Your task to perform on an android device: allow notifications from all sites in the chrome app Image 0: 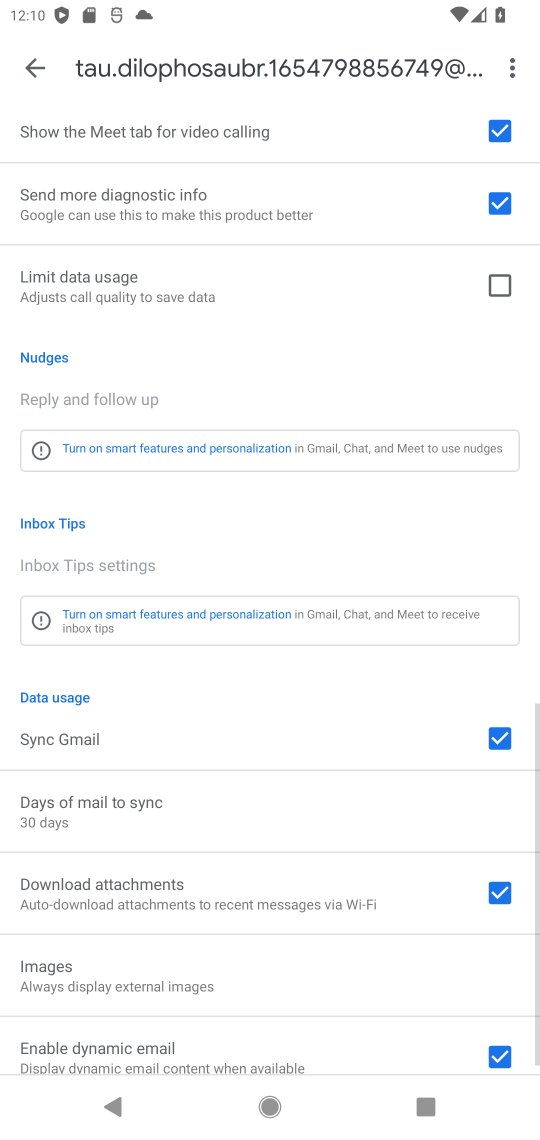
Step 0: press home button
Your task to perform on an android device: allow notifications from all sites in the chrome app Image 1: 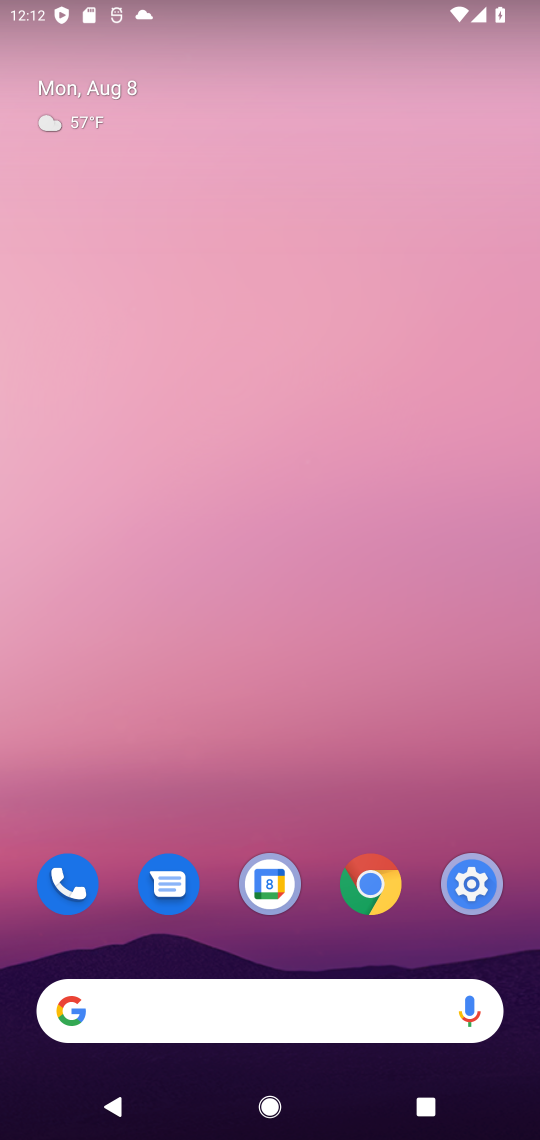
Step 1: click (365, 880)
Your task to perform on an android device: allow notifications from all sites in the chrome app Image 2: 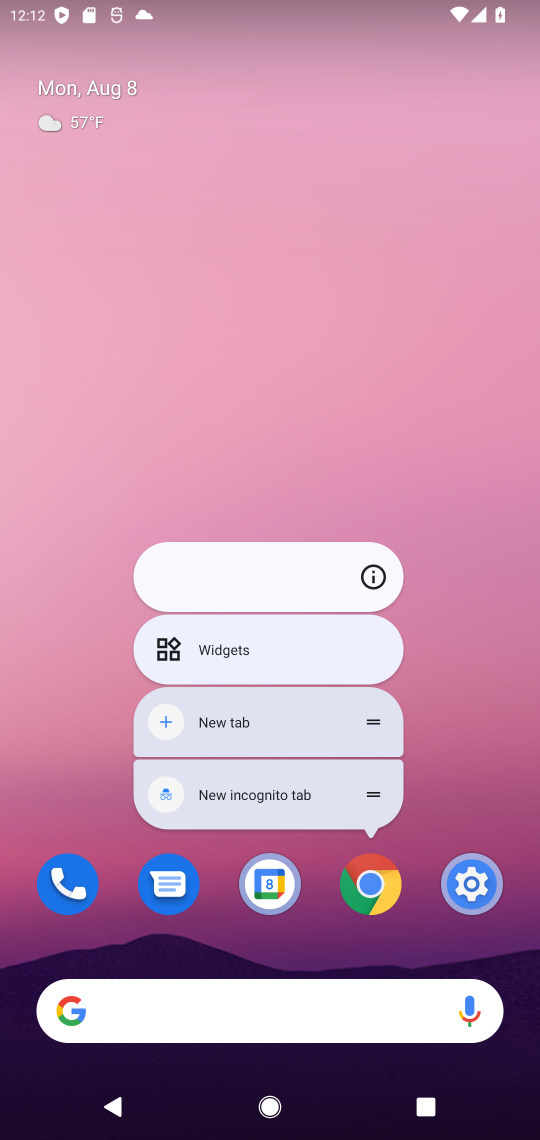
Step 2: click (365, 880)
Your task to perform on an android device: allow notifications from all sites in the chrome app Image 3: 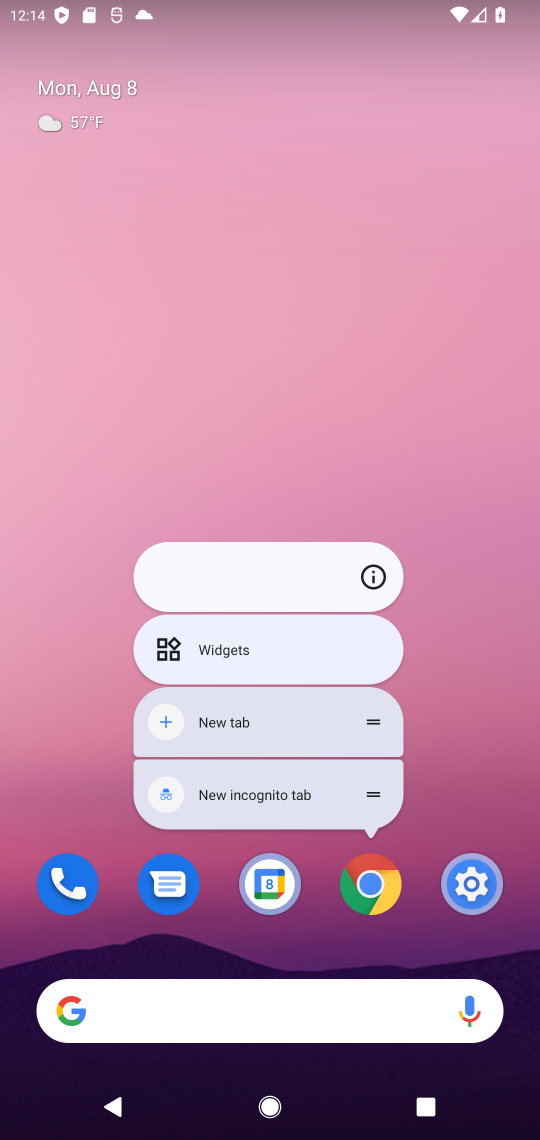
Step 3: click (350, 882)
Your task to perform on an android device: allow notifications from all sites in the chrome app Image 4: 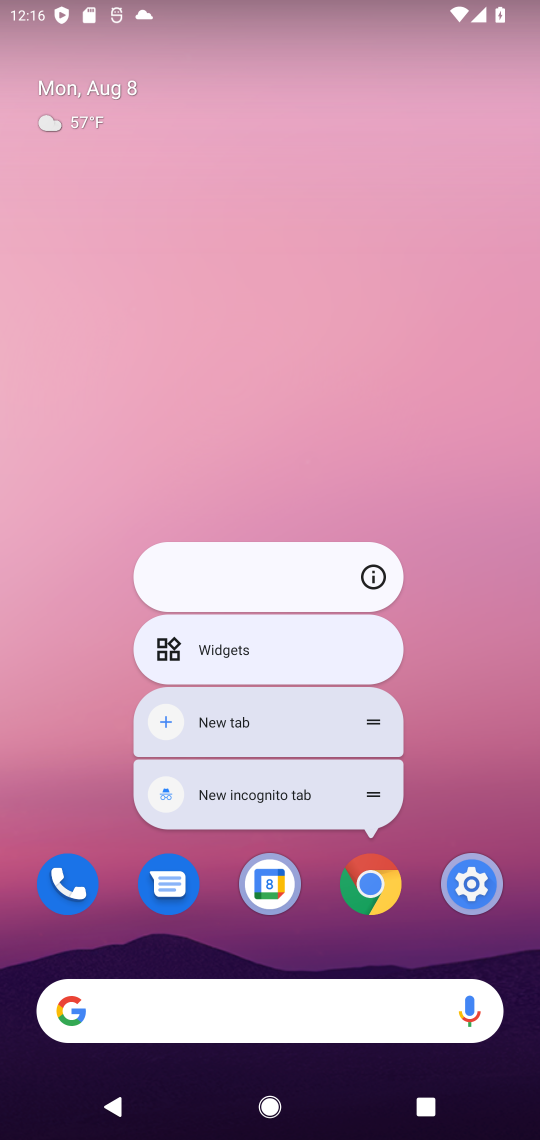
Step 4: click (381, 882)
Your task to perform on an android device: allow notifications from all sites in the chrome app Image 5: 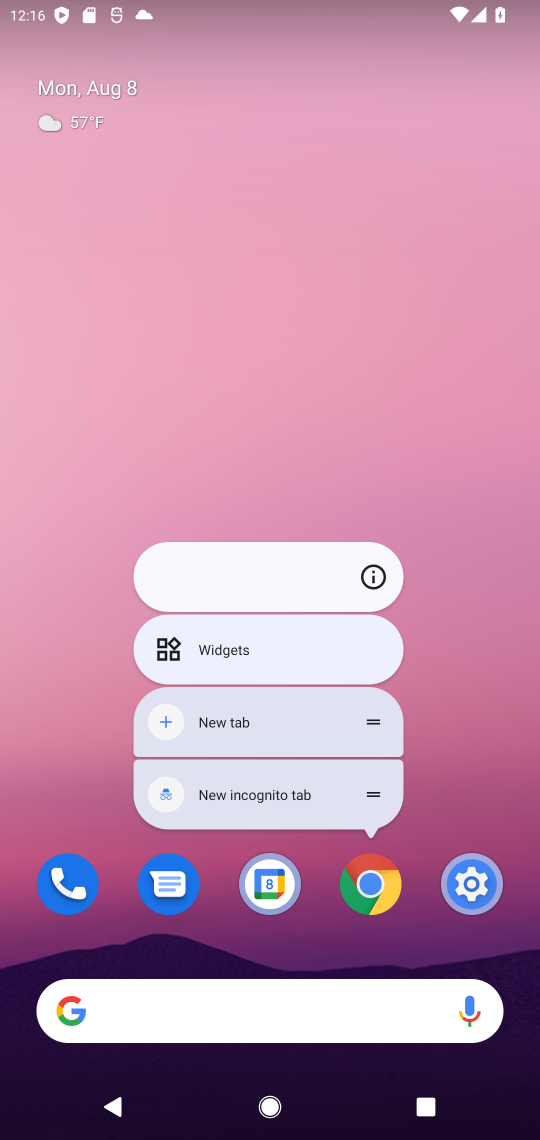
Step 5: click (361, 900)
Your task to perform on an android device: allow notifications from all sites in the chrome app Image 6: 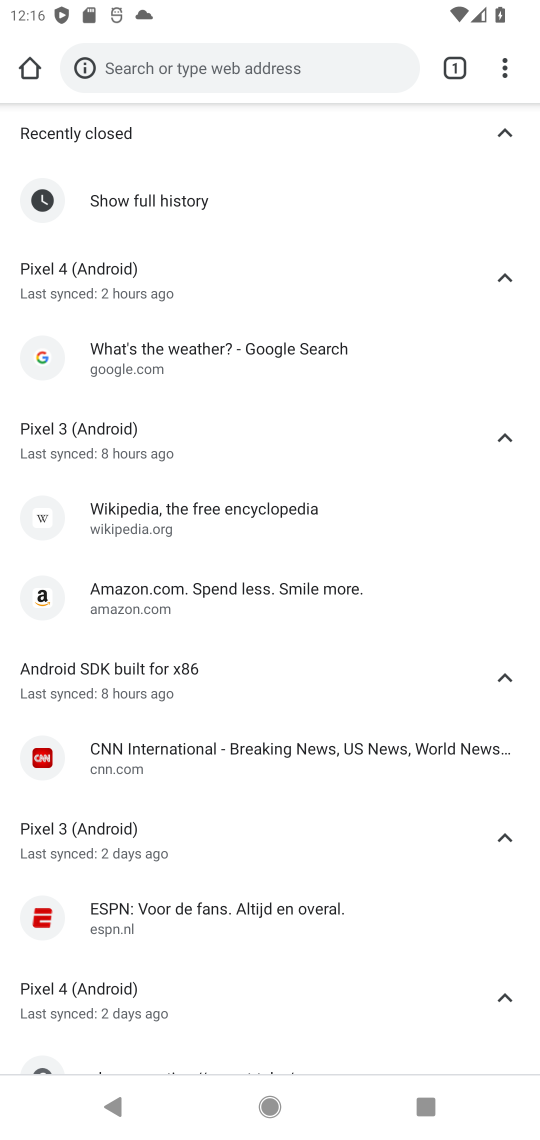
Step 6: click (500, 61)
Your task to perform on an android device: allow notifications from all sites in the chrome app Image 7: 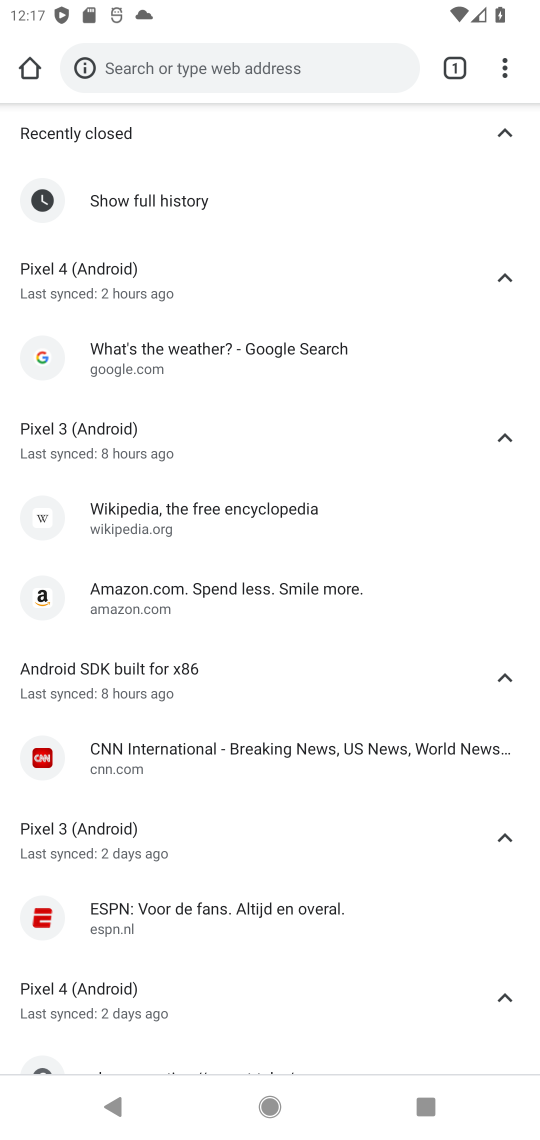
Step 7: press home button
Your task to perform on an android device: allow notifications from all sites in the chrome app Image 8: 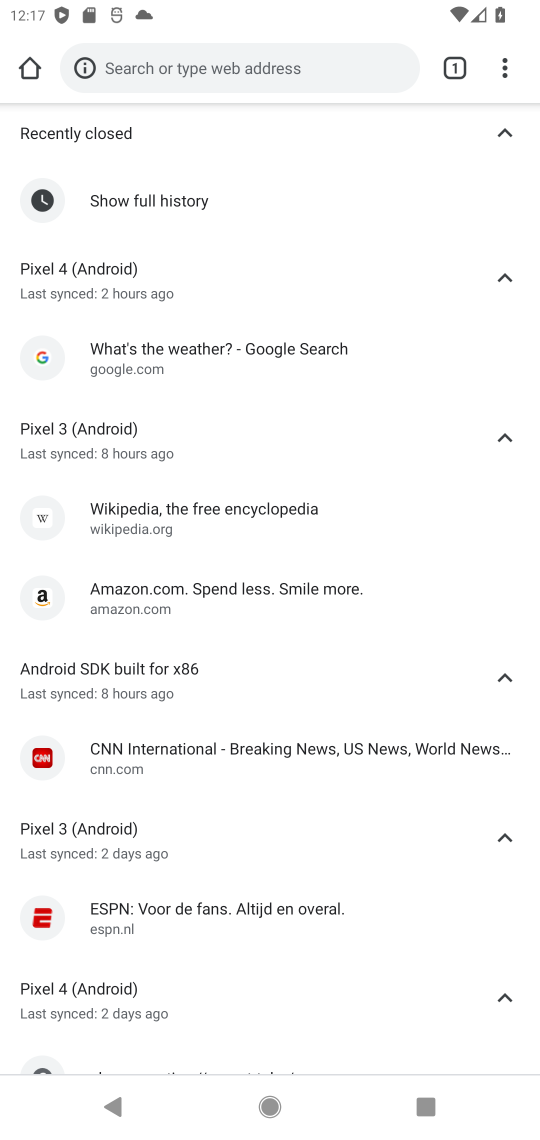
Step 8: press home button
Your task to perform on an android device: allow notifications from all sites in the chrome app Image 9: 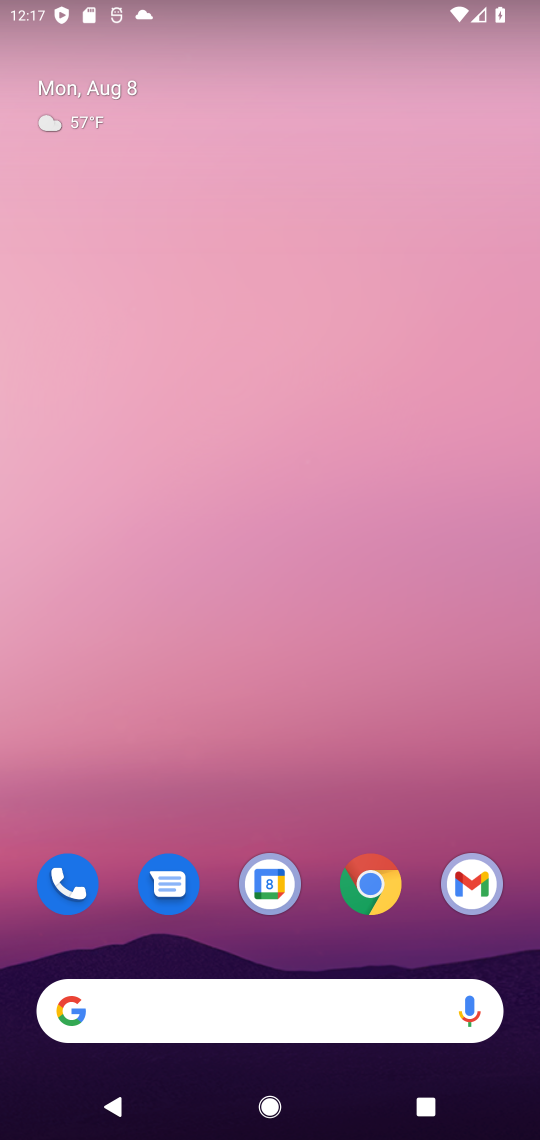
Step 9: click (180, 1078)
Your task to perform on an android device: allow notifications from all sites in the chrome app Image 10: 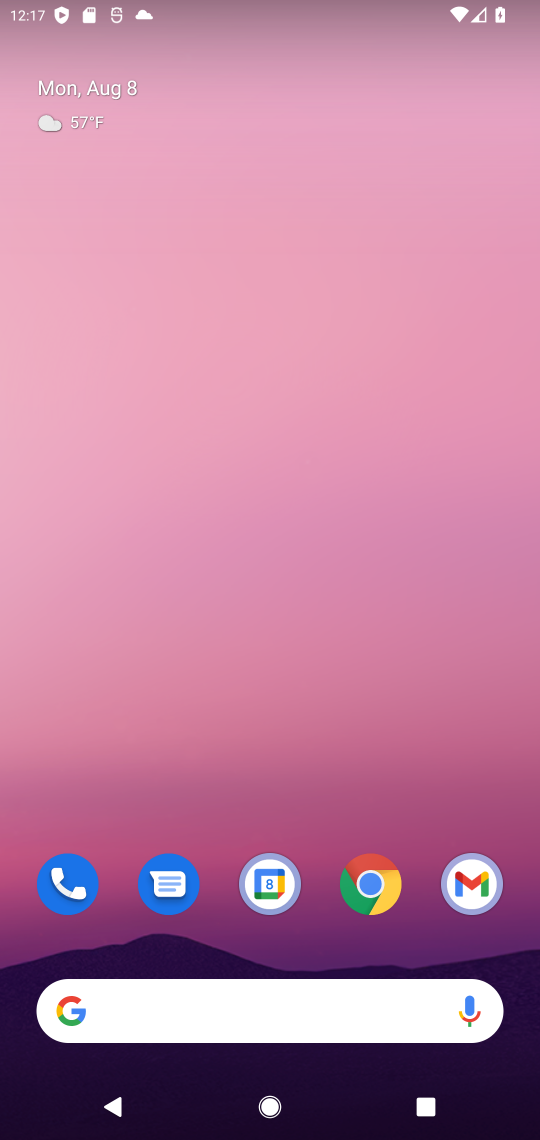
Step 10: click (360, 892)
Your task to perform on an android device: allow notifications from all sites in the chrome app Image 11: 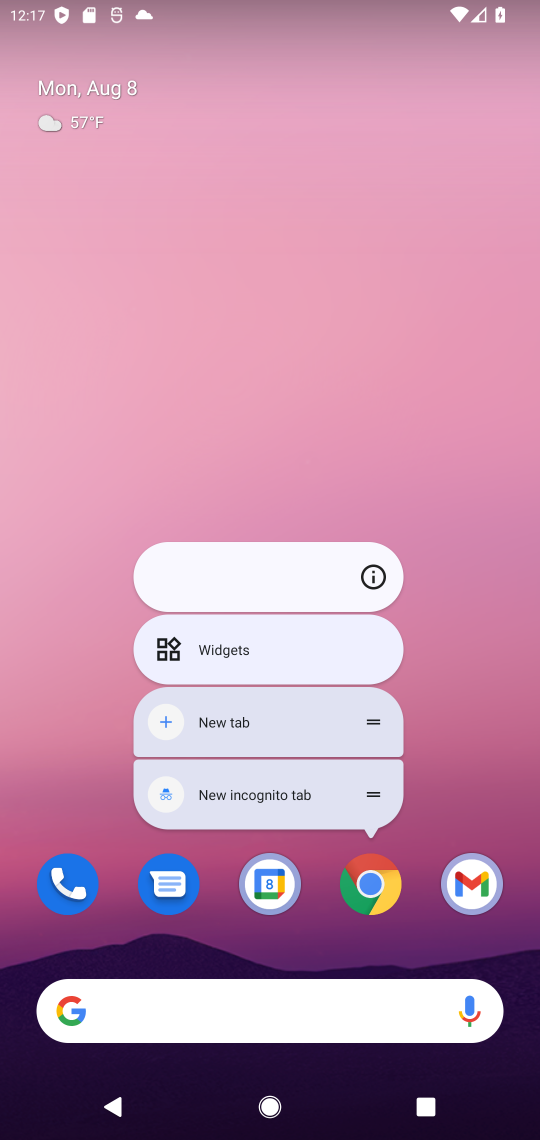
Step 11: click (370, 577)
Your task to perform on an android device: allow notifications from all sites in the chrome app Image 12: 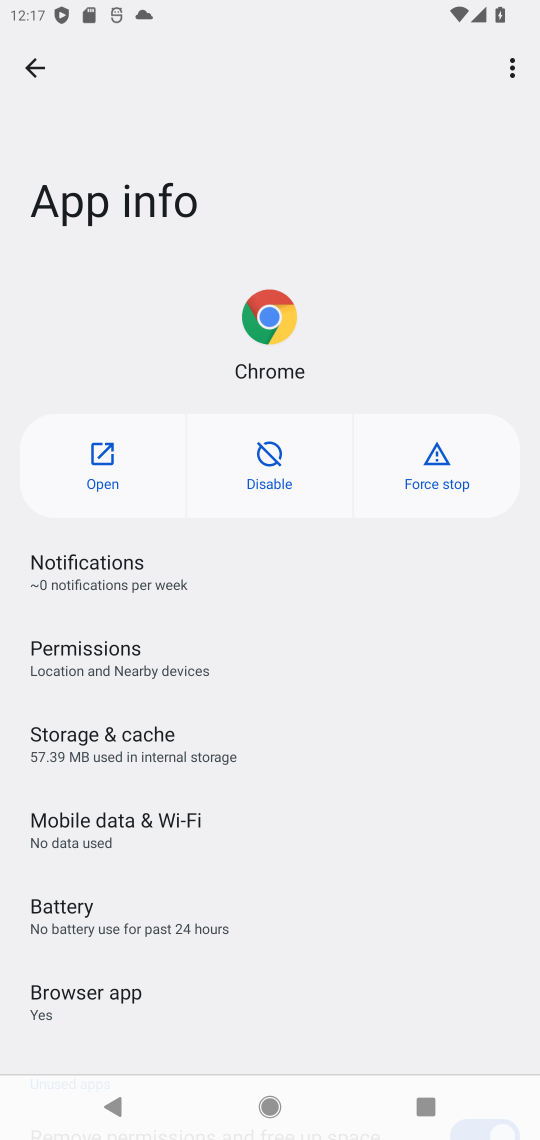
Step 12: click (250, 553)
Your task to perform on an android device: allow notifications from all sites in the chrome app Image 13: 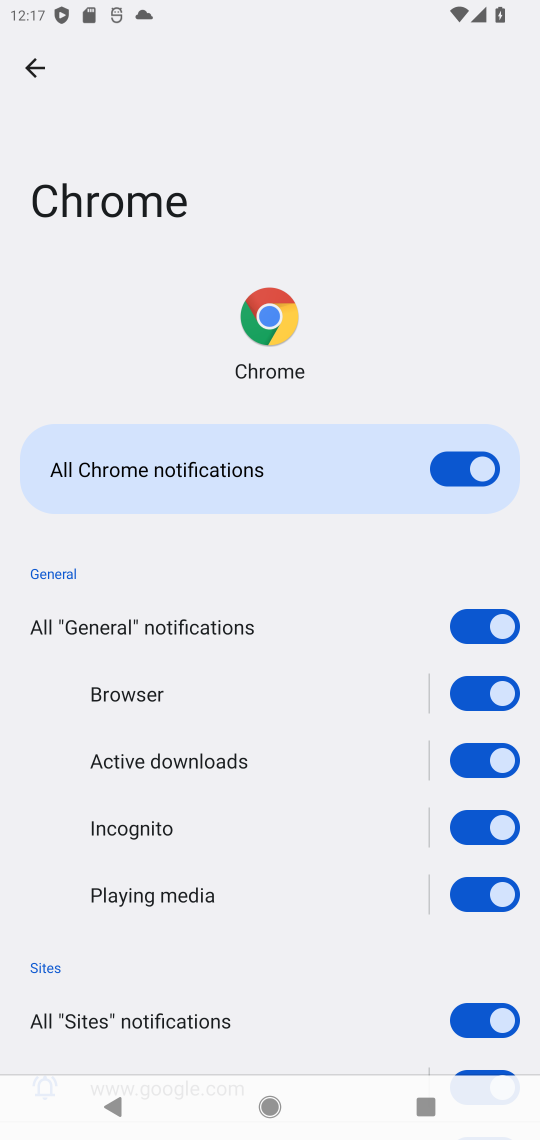
Step 13: task complete